Your task to perform on an android device: Open the Play Movies app and select the watchlist tab. Image 0: 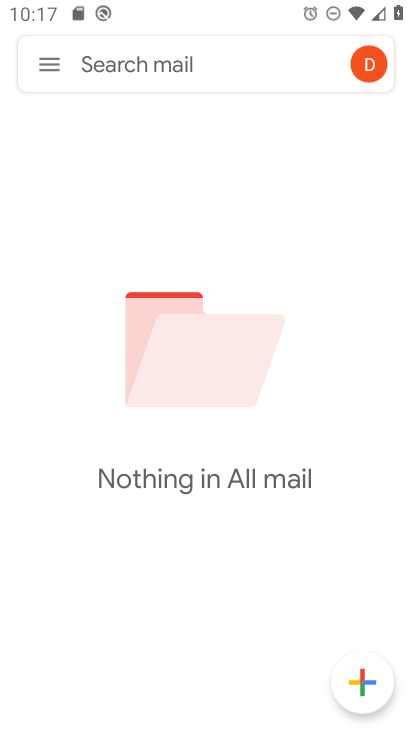
Step 0: press home button
Your task to perform on an android device: Open the Play Movies app and select the watchlist tab. Image 1: 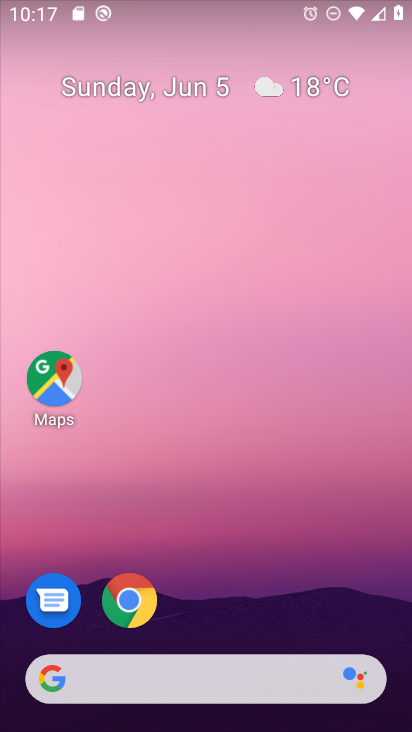
Step 1: drag from (254, 504) to (212, 0)
Your task to perform on an android device: Open the Play Movies app and select the watchlist tab. Image 2: 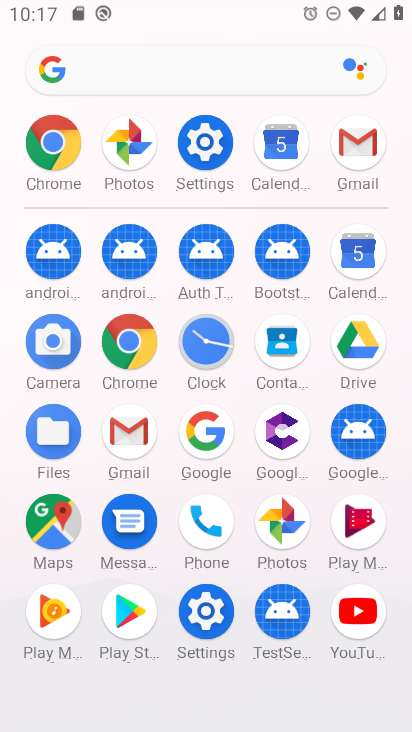
Step 2: click (355, 513)
Your task to perform on an android device: Open the Play Movies app and select the watchlist tab. Image 3: 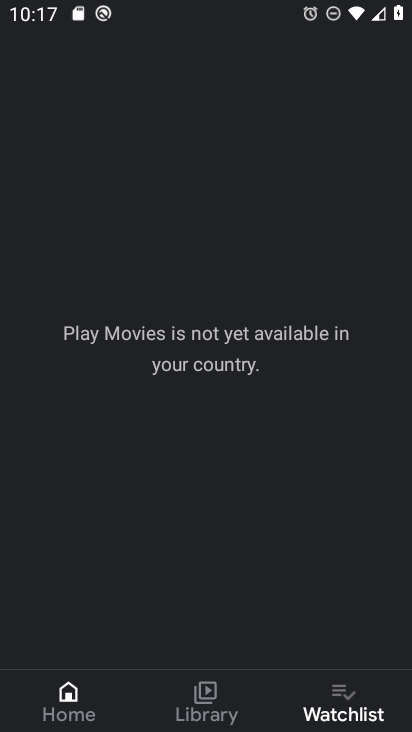
Step 3: task complete